Your task to perform on an android device: Show the shopping cart on walmart.com. Add "beats solo 3" to the cart on walmart.com, then select checkout. Image 0: 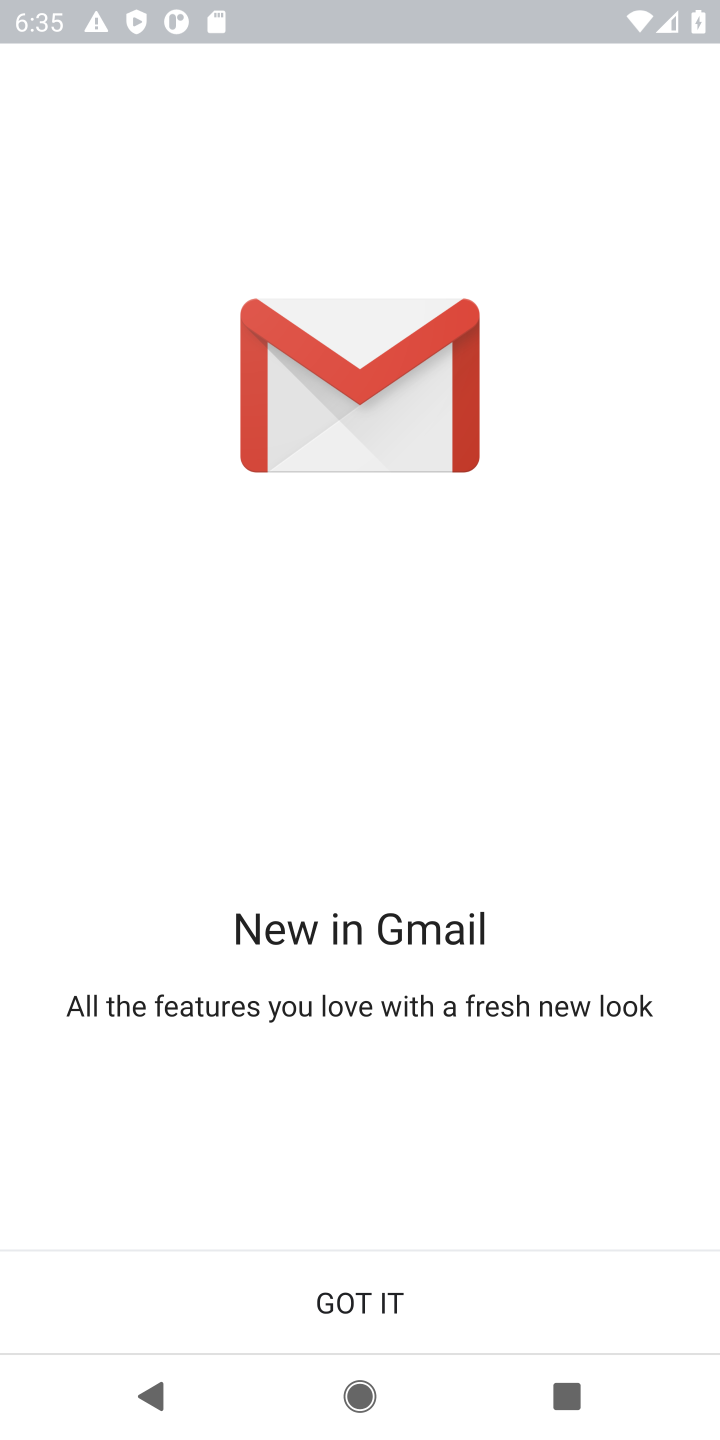
Step 0: press home button
Your task to perform on an android device: Show the shopping cart on walmart.com. Add "beats solo 3" to the cart on walmart.com, then select checkout. Image 1: 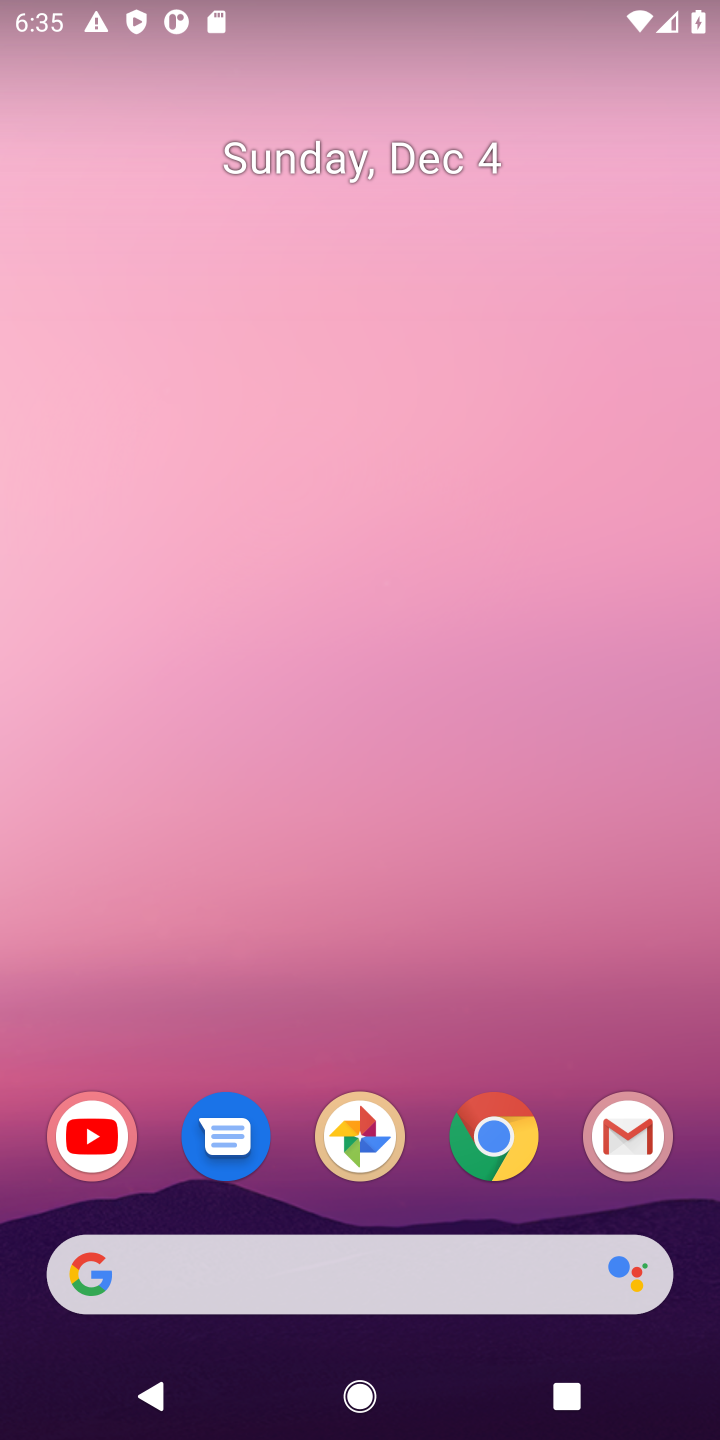
Step 1: click (483, 1141)
Your task to perform on an android device: Show the shopping cart on walmart.com. Add "beats solo 3" to the cart on walmart.com, then select checkout. Image 2: 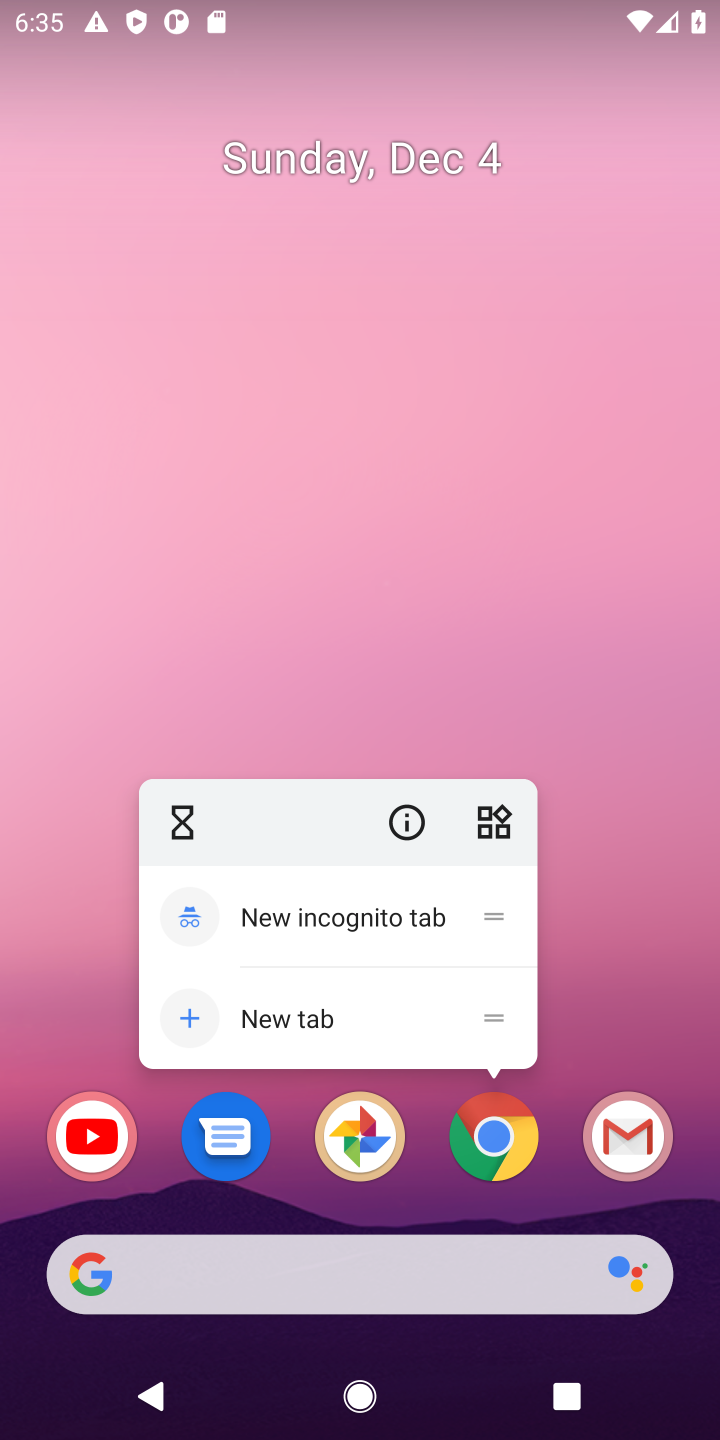
Step 2: click (485, 1149)
Your task to perform on an android device: Show the shopping cart on walmart.com. Add "beats solo 3" to the cart on walmart.com, then select checkout. Image 3: 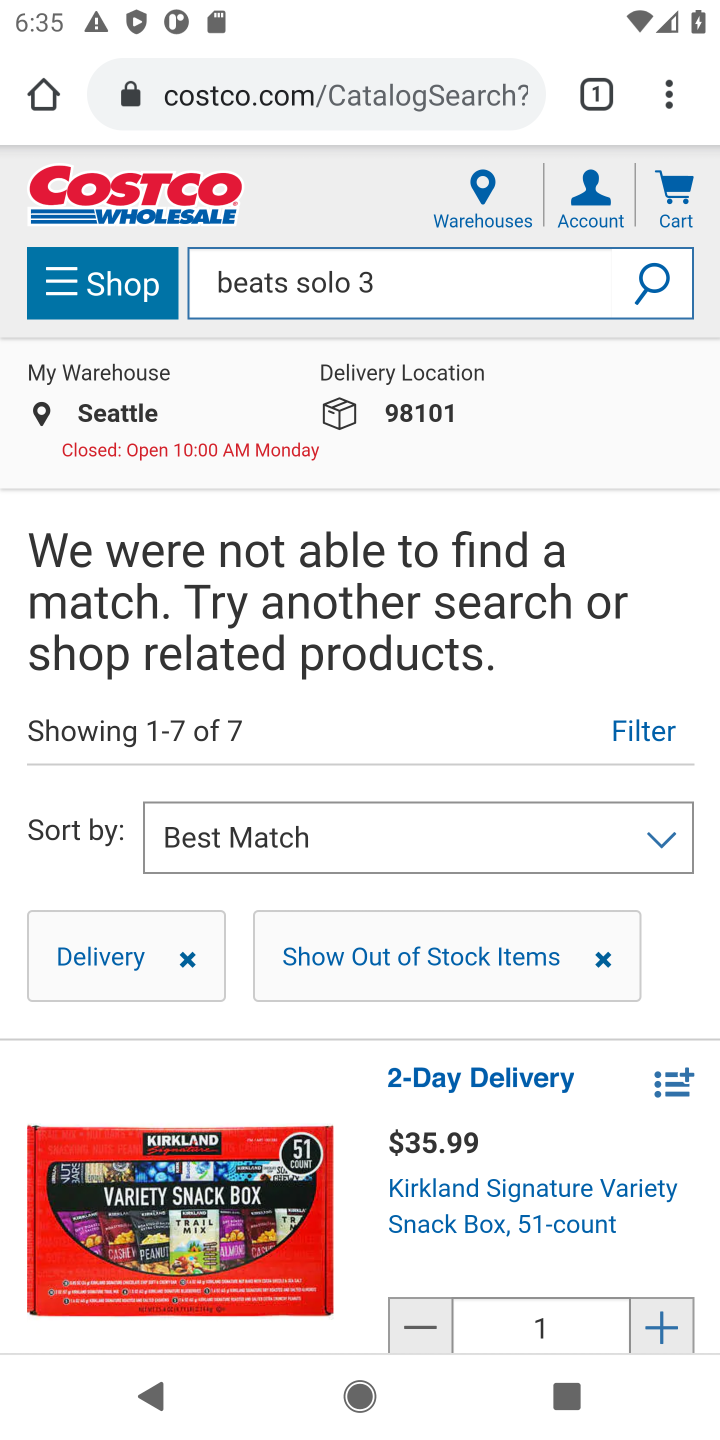
Step 3: click (331, 100)
Your task to perform on an android device: Show the shopping cart on walmart.com. Add "beats solo 3" to the cart on walmart.com, then select checkout. Image 4: 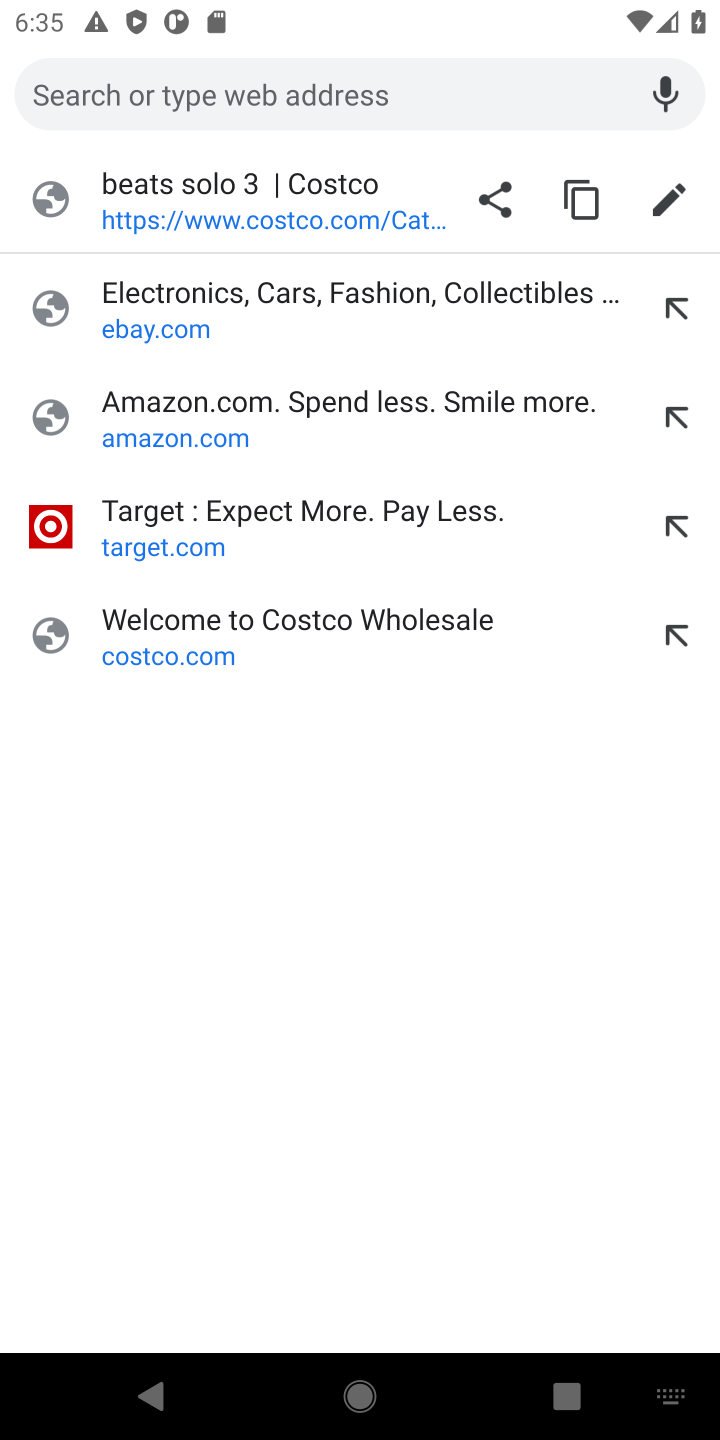
Step 4: type "walmart.com"
Your task to perform on an android device: Show the shopping cart on walmart.com. Add "beats solo 3" to the cart on walmart.com, then select checkout. Image 5: 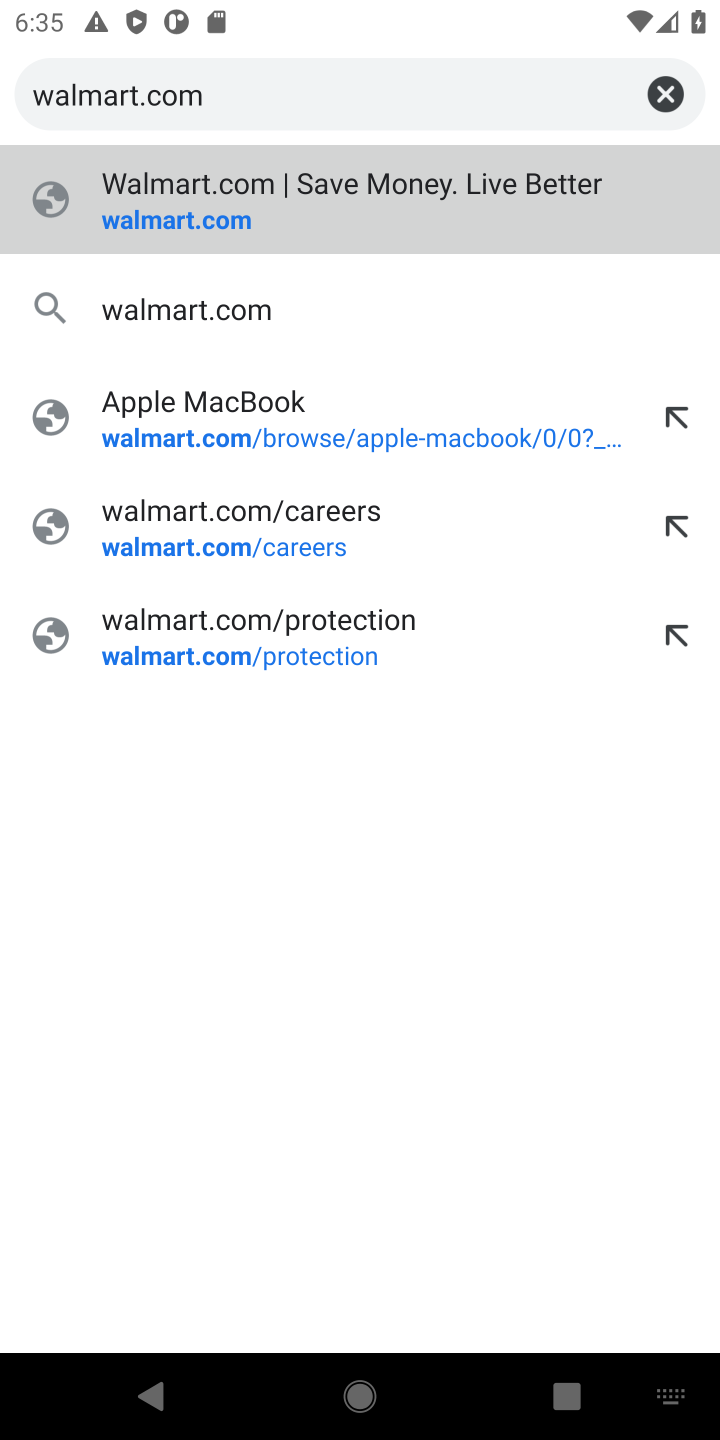
Step 5: click (169, 213)
Your task to perform on an android device: Show the shopping cart on walmart.com. Add "beats solo 3" to the cart on walmart.com, then select checkout. Image 6: 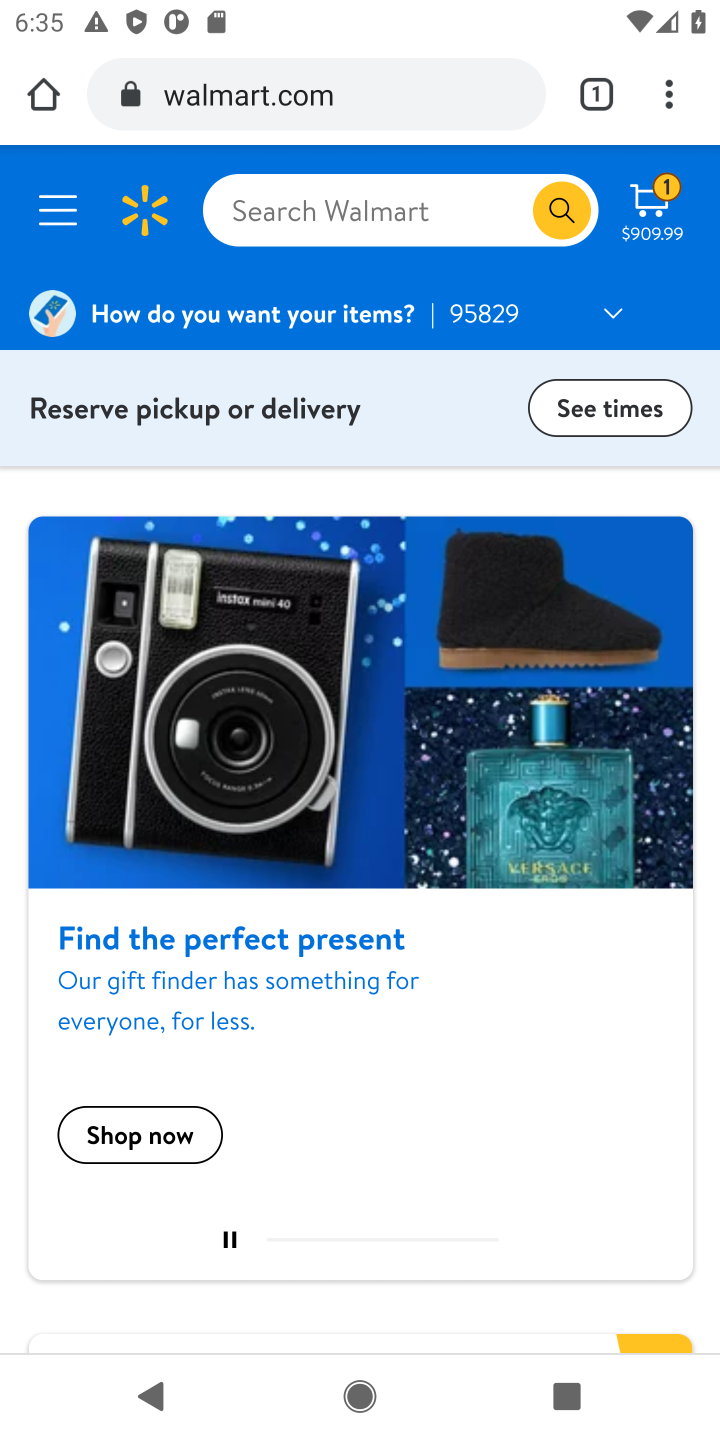
Step 6: click (662, 213)
Your task to perform on an android device: Show the shopping cart on walmart.com. Add "beats solo 3" to the cart on walmart.com, then select checkout. Image 7: 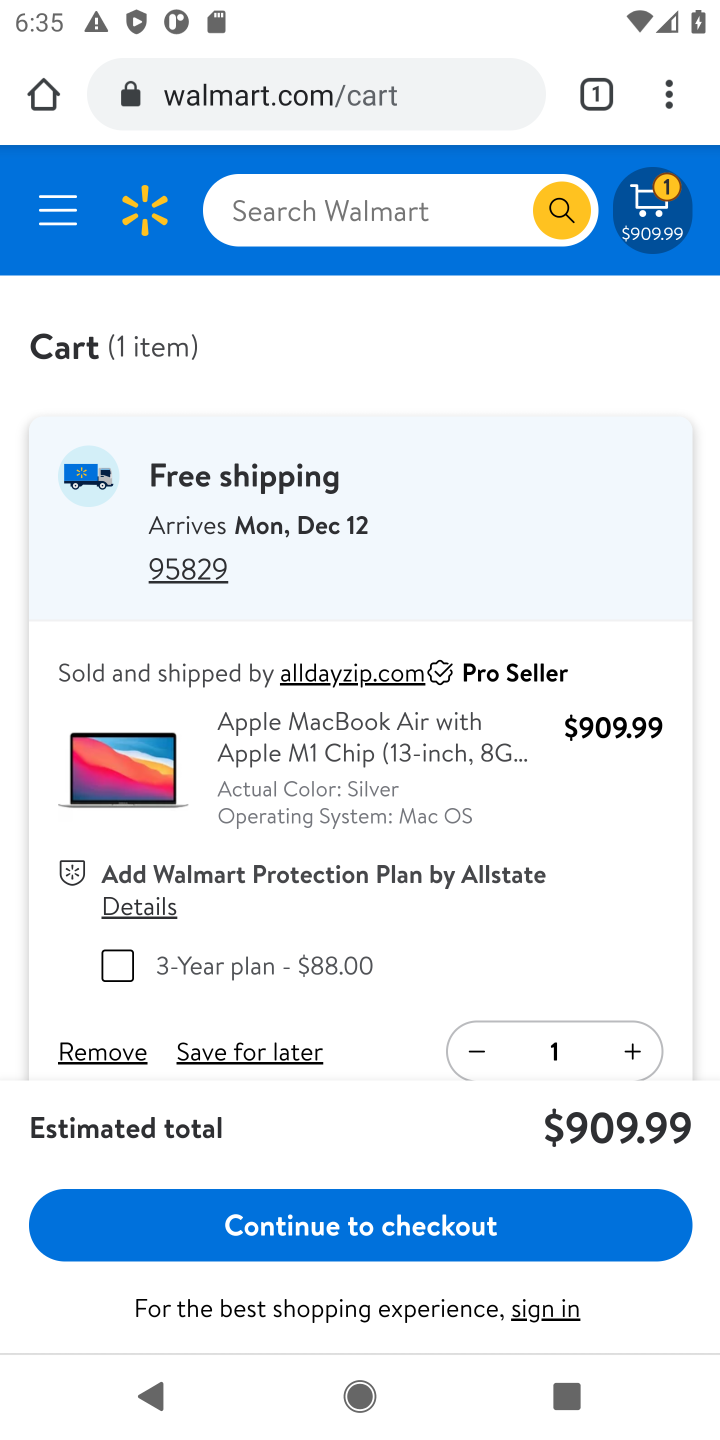
Step 7: click (261, 202)
Your task to perform on an android device: Show the shopping cart on walmart.com. Add "beats solo 3" to the cart on walmart.com, then select checkout. Image 8: 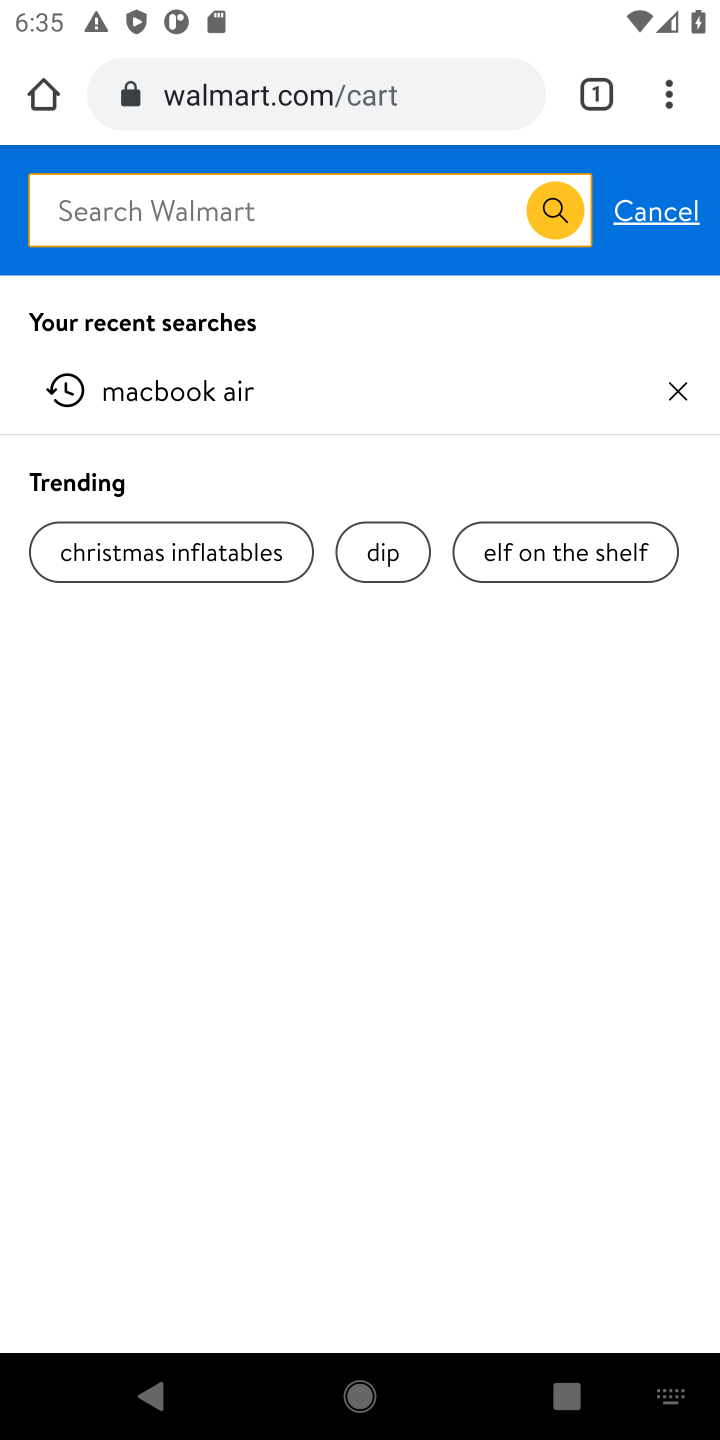
Step 8: type "beats solo 3"
Your task to perform on an android device: Show the shopping cart on walmart.com. Add "beats solo 3" to the cart on walmart.com, then select checkout. Image 9: 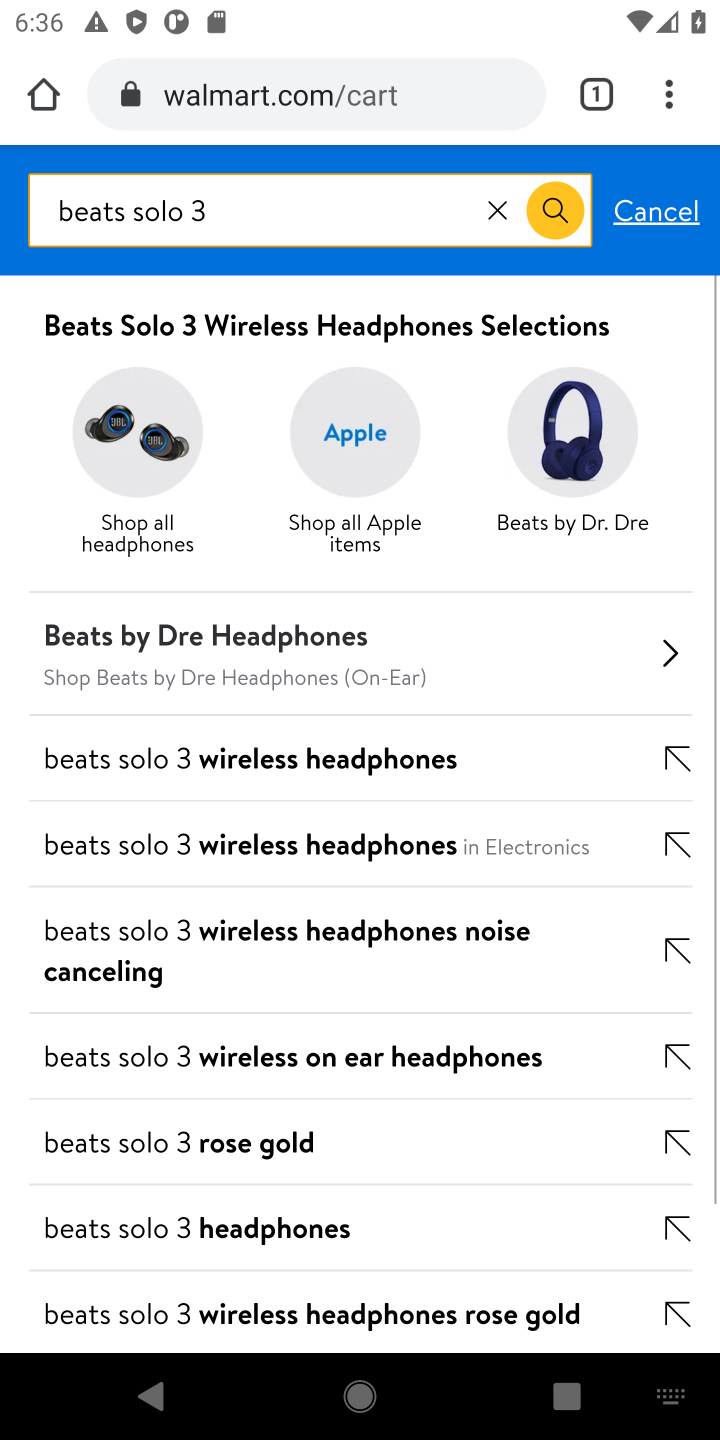
Step 9: click (200, 772)
Your task to perform on an android device: Show the shopping cart on walmart.com. Add "beats solo 3" to the cart on walmart.com, then select checkout. Image 10: 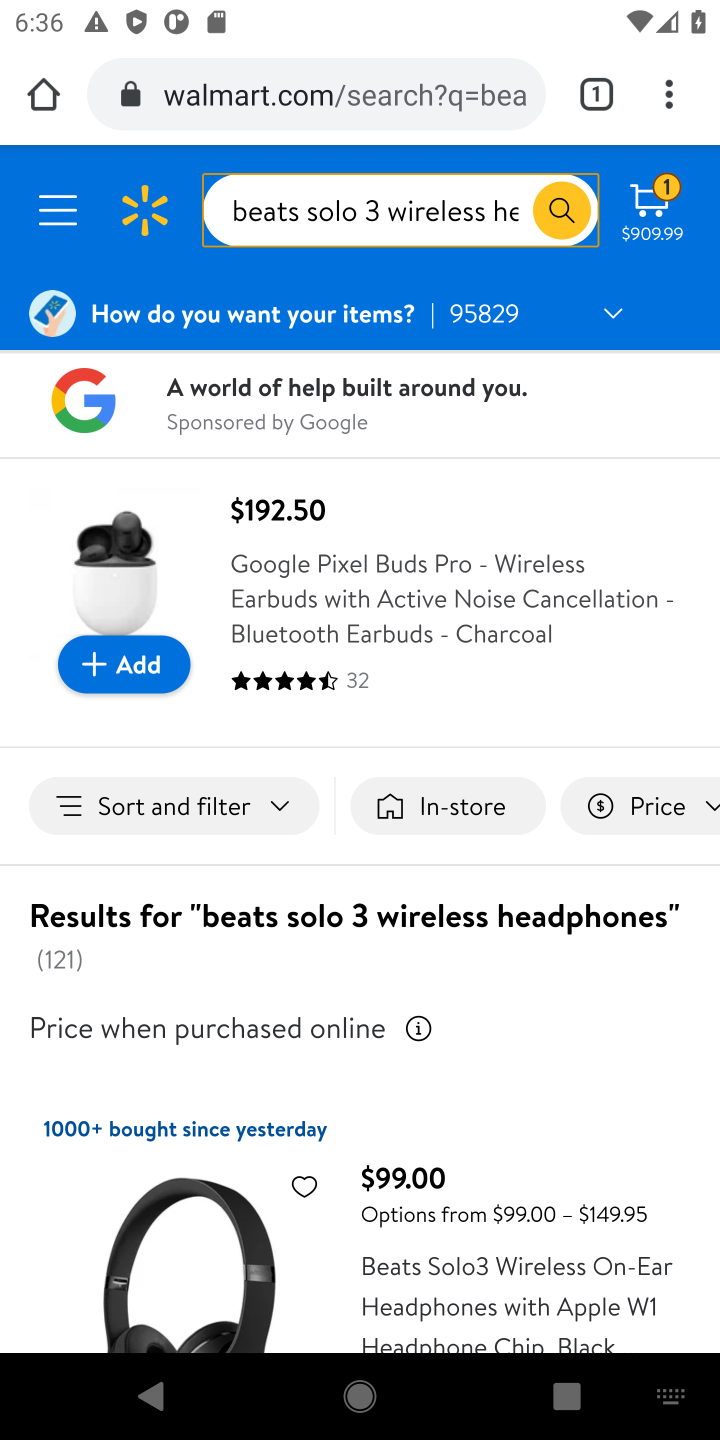
Step 10: drag from (425, 988) to (483, 504)
Your task to perform on an android device: Show the shopping cart on walmart.com. Add "beats solo 3" to the cart on walmart.com, then select checkout. Image 11: 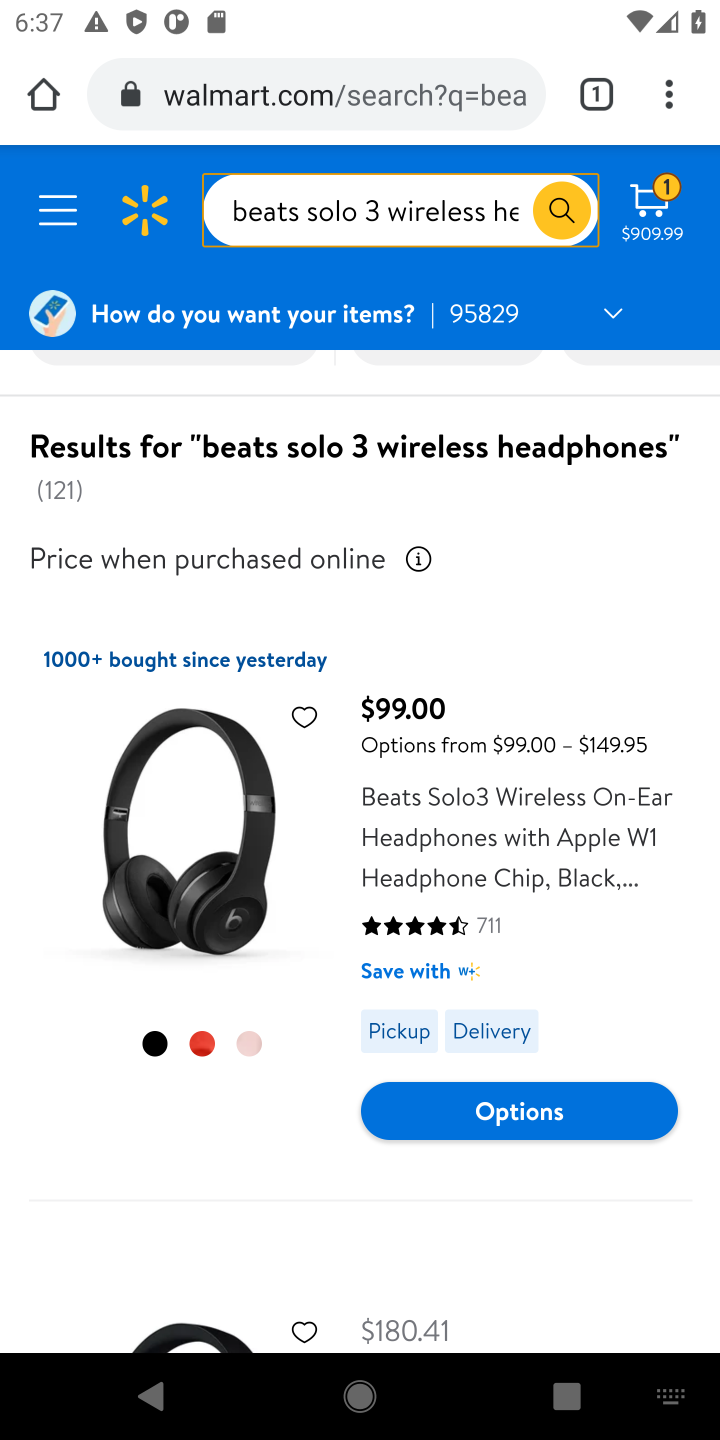
Step 11: click (451, 871)
Your task to perform on an android device: Show the shopping cart on walmart.com. Add "beats solo 3" to the cart on walmart.com, then select checkout. Image 12: 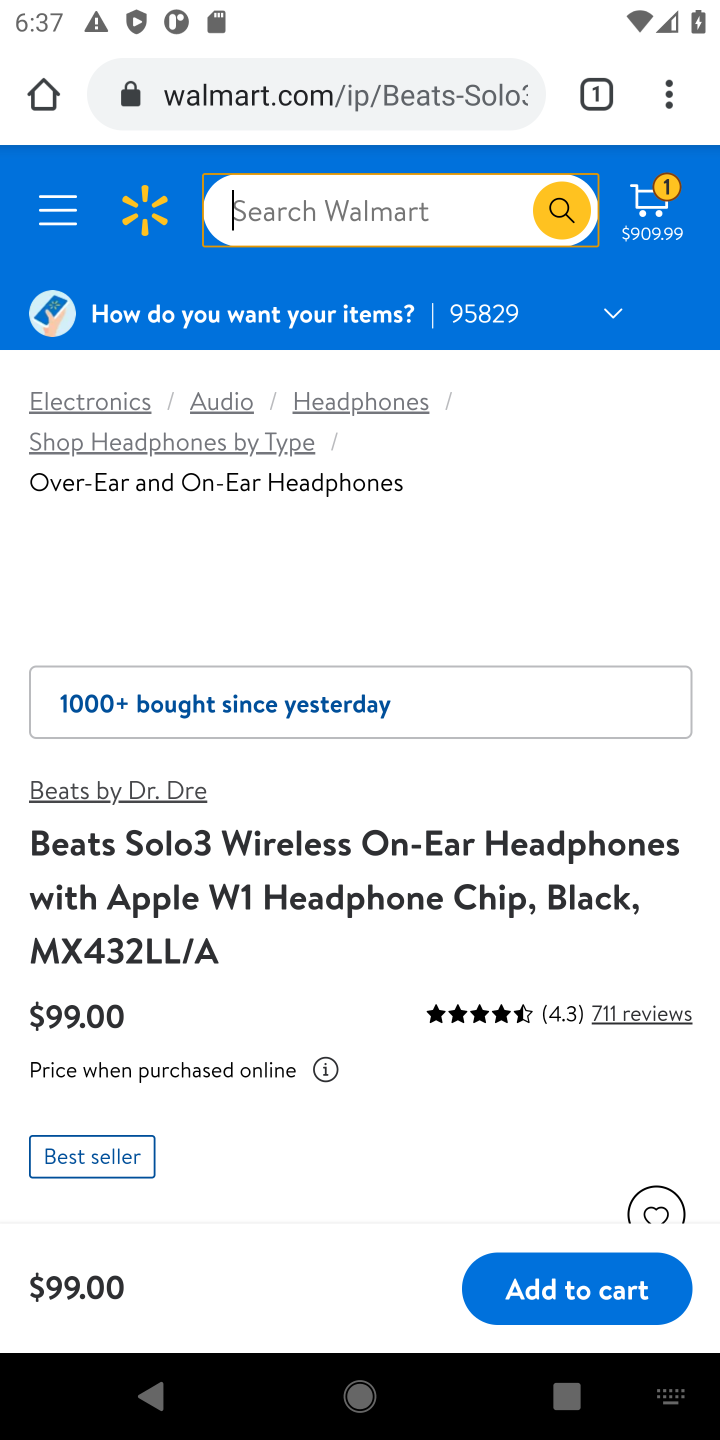
Step 12: click (581, 1296)
Your task to perform on an android device: Show the shopping cart on walmart.com. Add "beats solo 3" to the cart on walmart.com, then select checkout. Image 13: 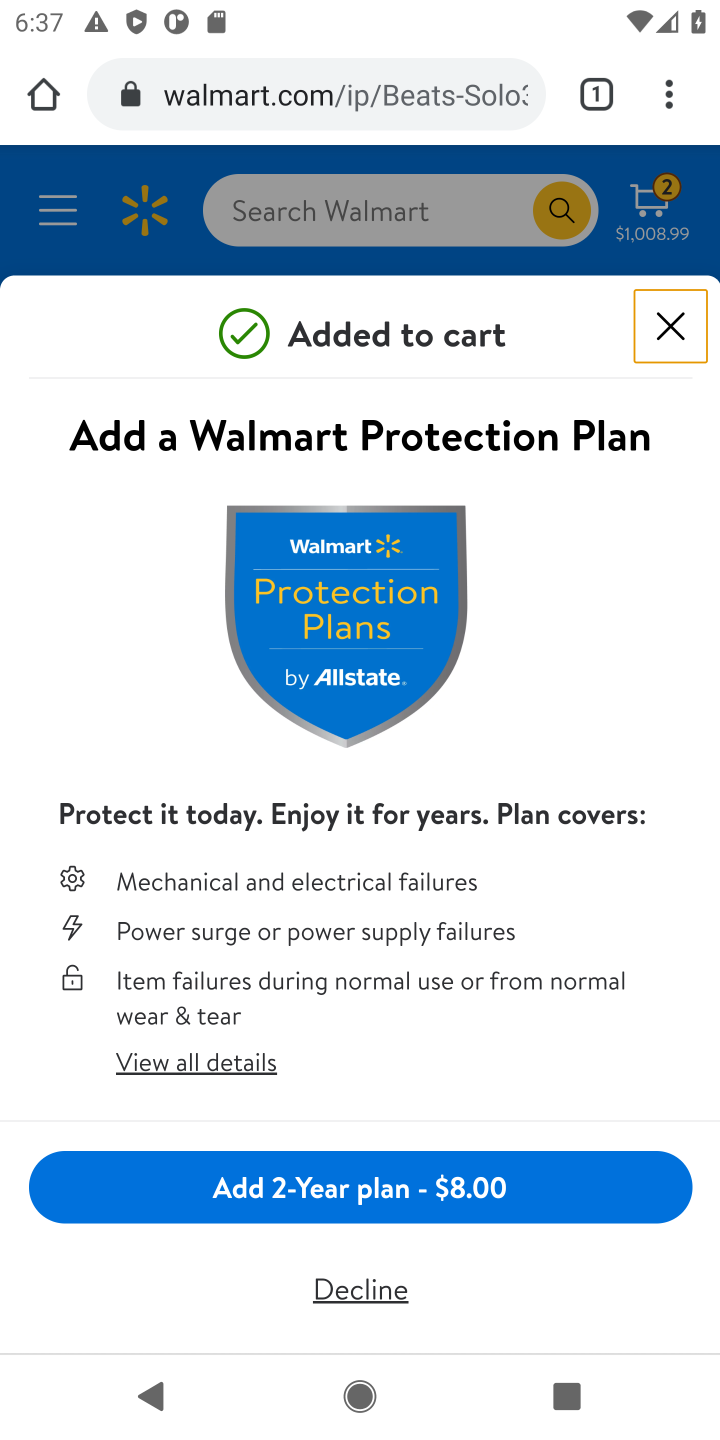
Step 13: click (658, 338)
Your task to perform on an android device: Show the shopping cart on walmart.com. Add "beats solo 3" to the cart on walmart.com, then select checkout. Image 14: 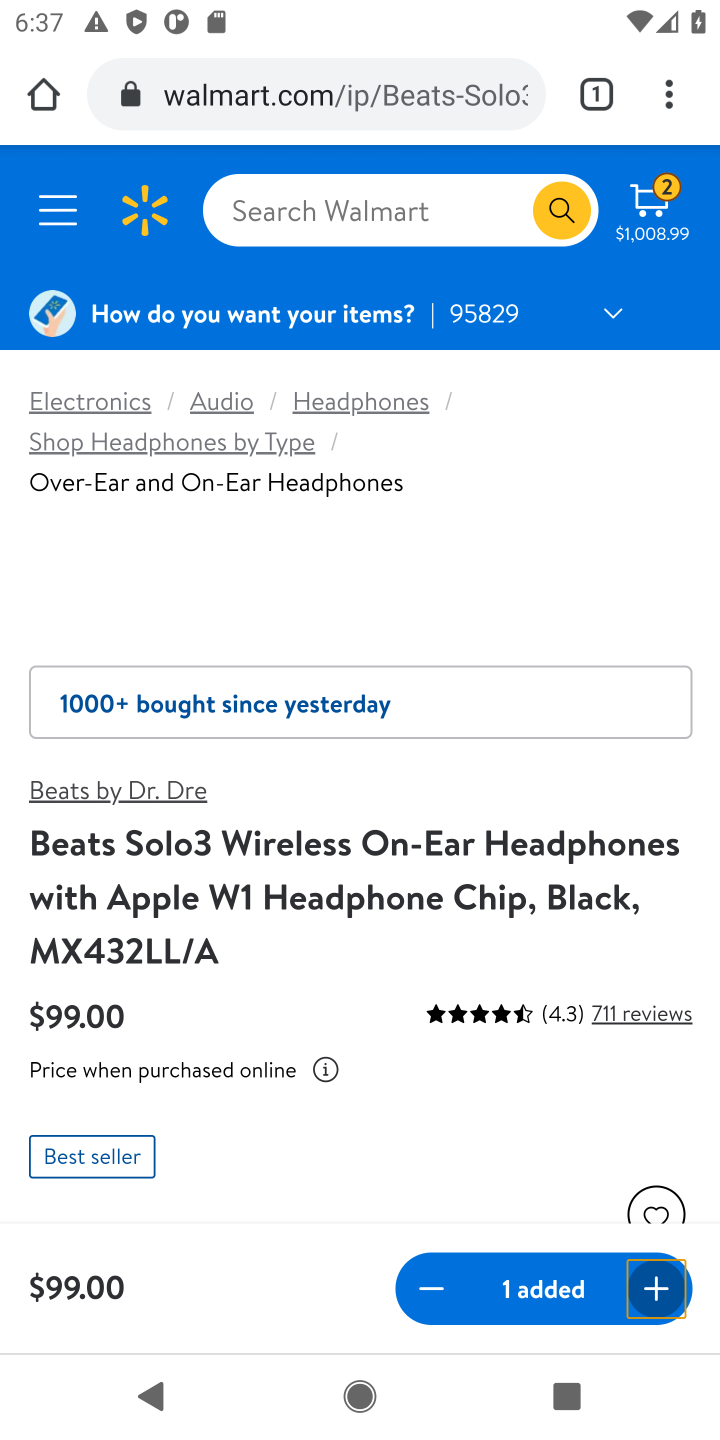
Step 14: click (664, 220)
Your task to perform on an android device: Show the shopping cart on walmart.com. Add "beats solo 3" to the cart on walmart.com, then select checkout. Image 15: 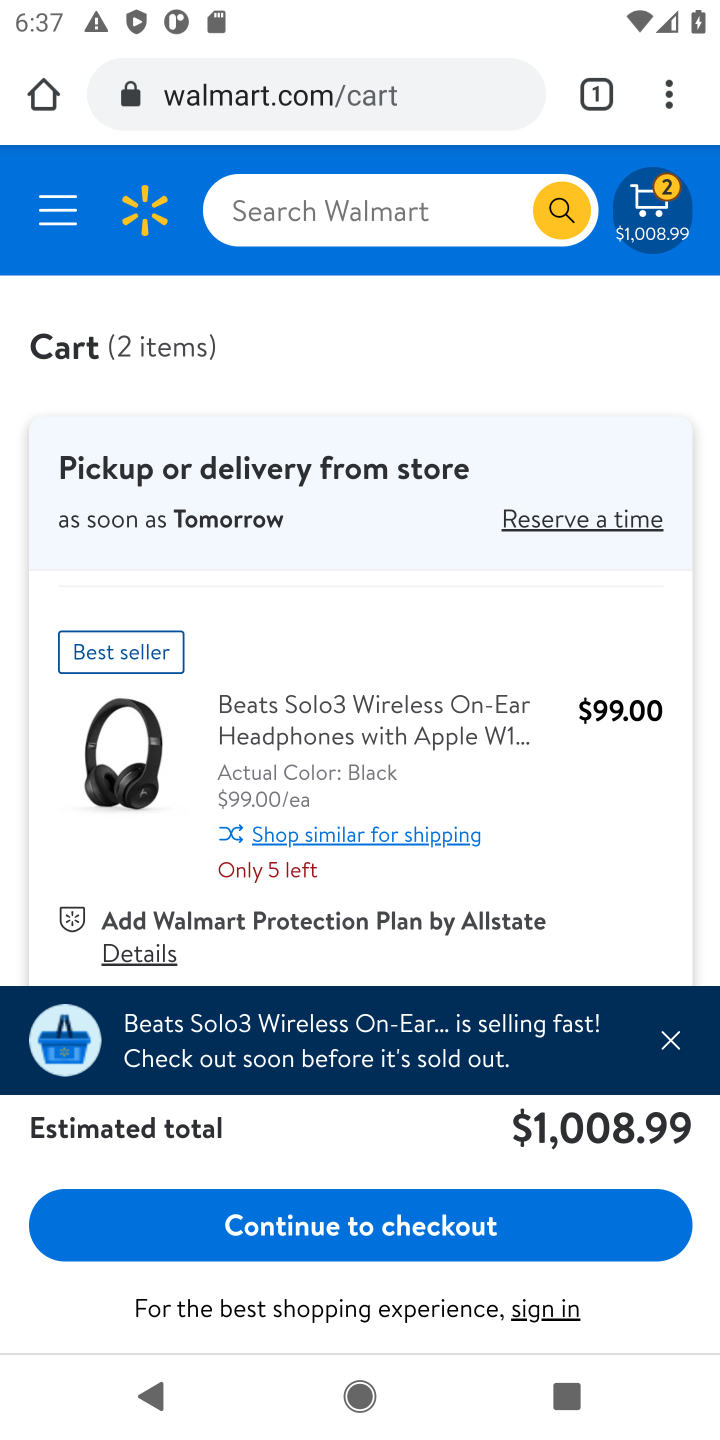
Step 15: click (381, 1225)
Your task to perform on an android device: Show the shopping cart on walmart.com. Add "beats solo 3" to the cart on walmart.com, then select checkout. Image 16: 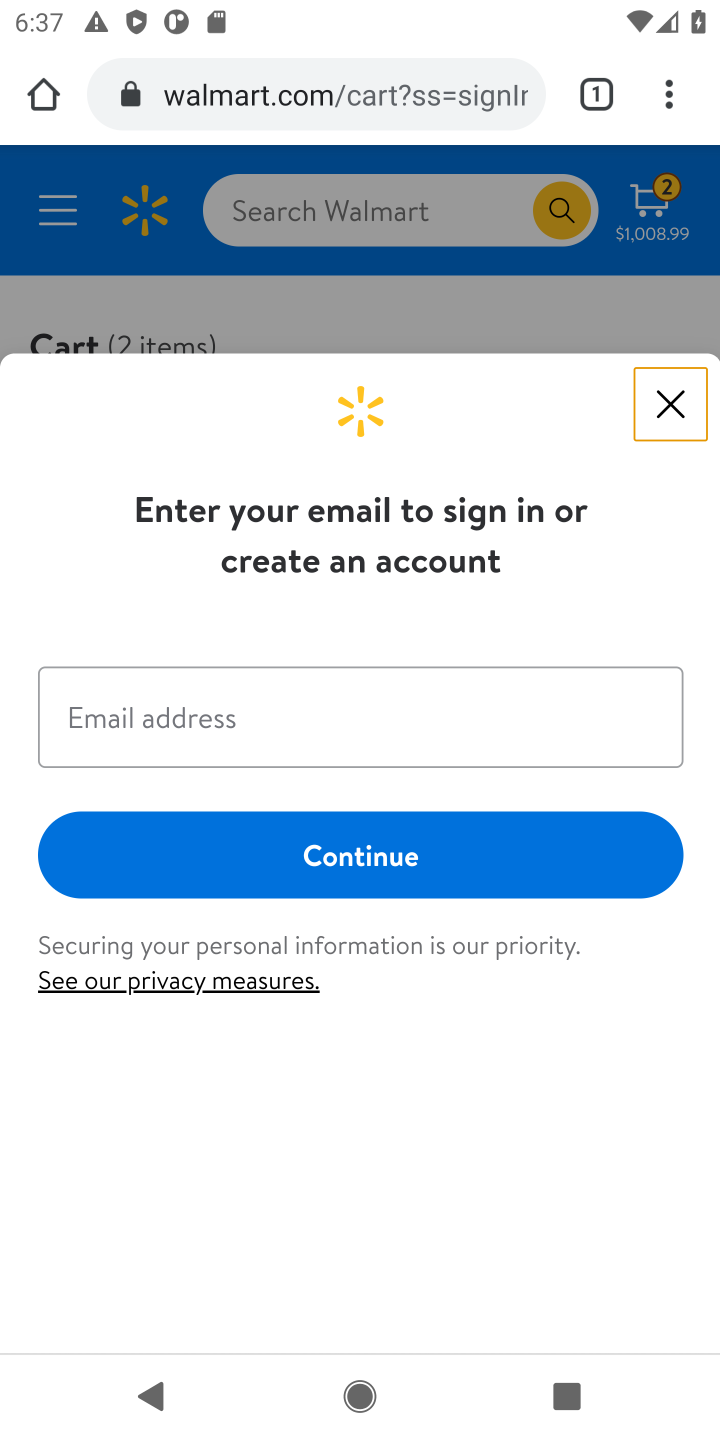
Step 16: task complete